Your task to perform on an android device: turn off translation in the chrome app Image 0: 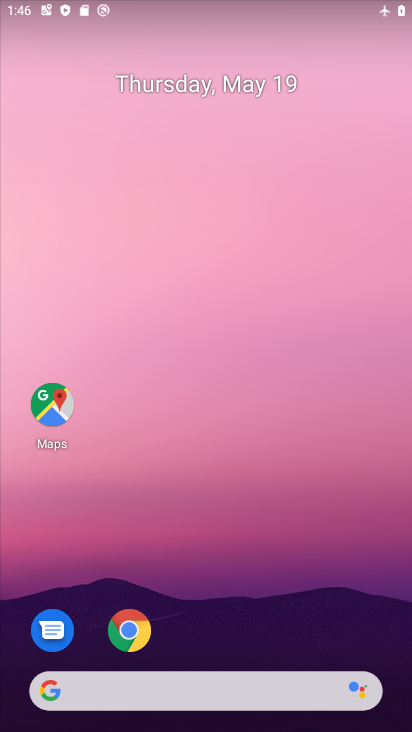
Step 0: drag from (195, 658) to (119, 114)
Your task to perform on an android device: turn off translation in the chrome app Image 1: 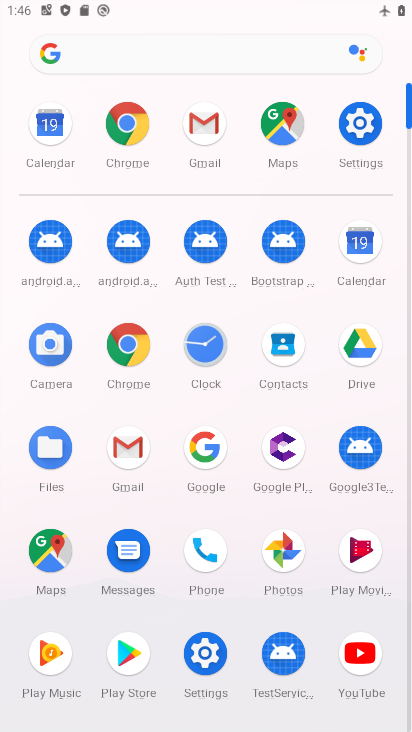
Step 1: click (117, 347)
Your task to perform on an android device: turn off translation in the chrome app Image 2: 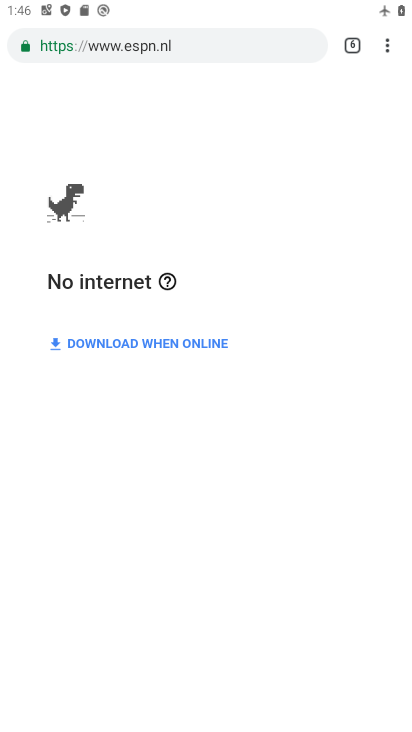
Step 2: drag from (391, 50) to (225, 497)
Your task to perform on an android device: turn off translation in the chrome app Image 3: 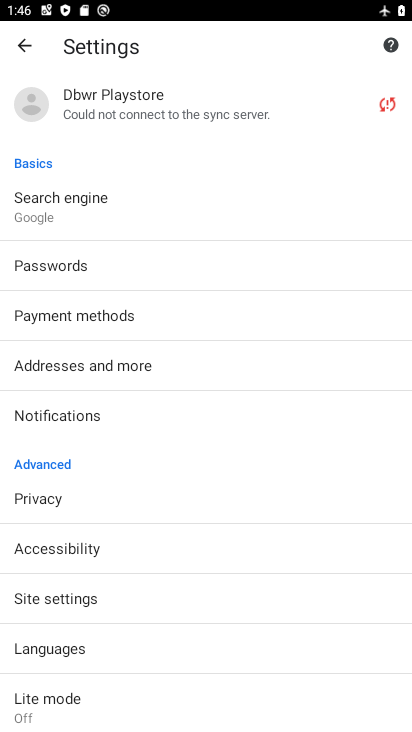
Step 3: click (54, 651)
Your task to perform on an android device: turn off translation in the chrome app Image 4: 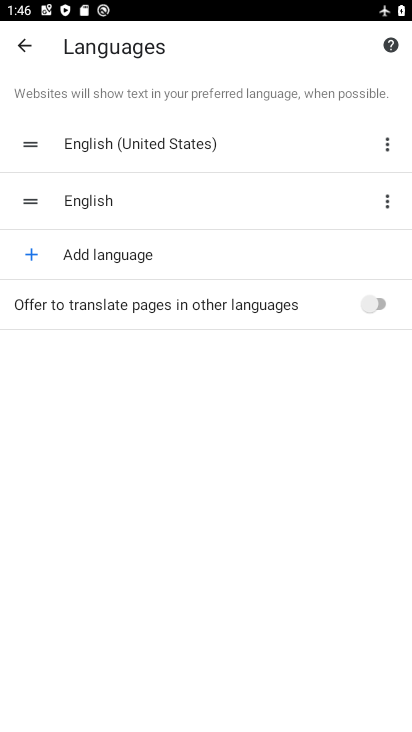
Step 4: task complete